Your task to perform on an android device: visit the assistant section in the google photos Image 0: 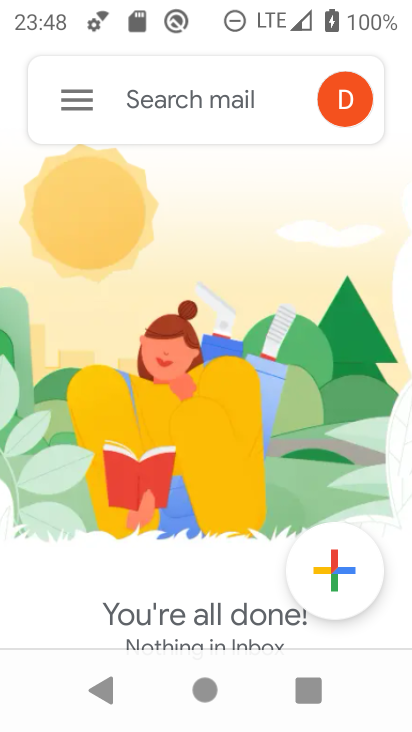
Step 0: press home button
Your task to perform on an android device: visit the assistant section in the google photos Image 1: 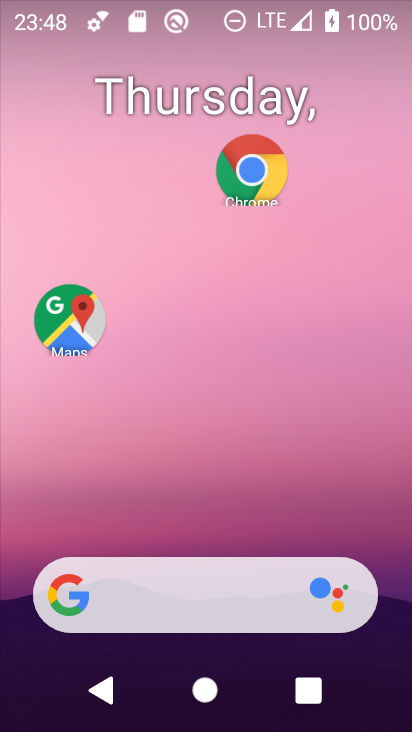
Step 1: click (275, 230)
Your task to perform on an android device: visit the assistant section in the google photos Image 2: 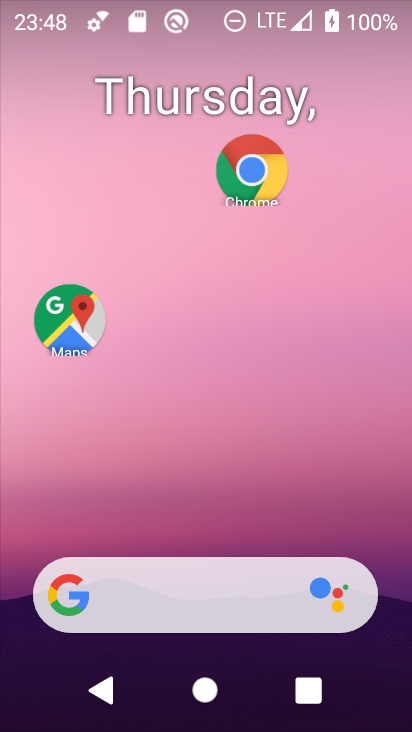
Step 2: drag from (178, 525) to (182, 223)
Your task to perform on an android device: visit the assistant section in the google photos Image 3: 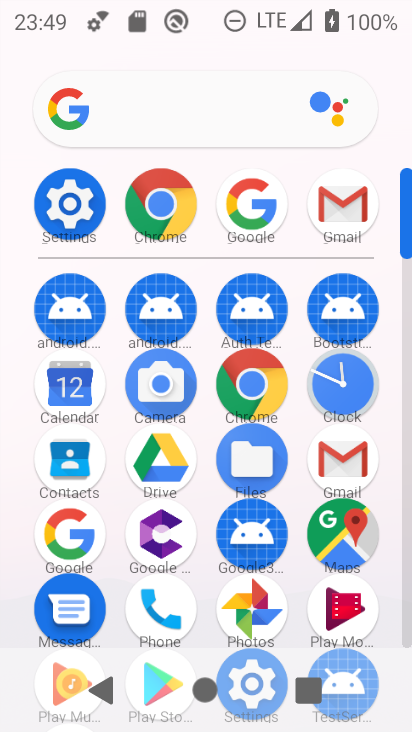
Step 3: click (265, 610)
Your task to perform on an android device: visit the assistant section in the google photos Image 4: 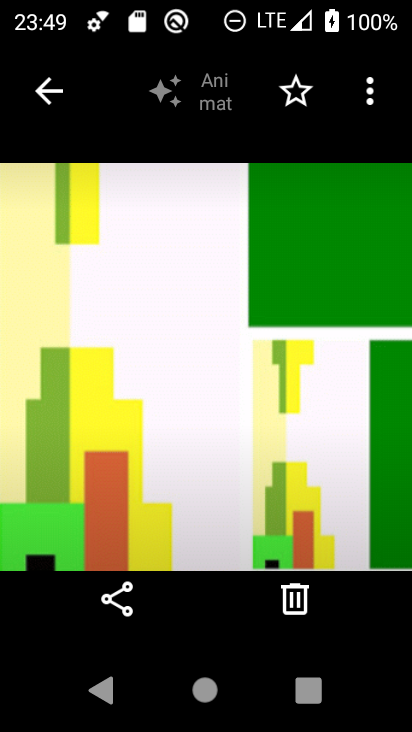
Step 4: click (66, 96)
Your task to perform on an android device: visit the assistant section in the google photos Image 5: 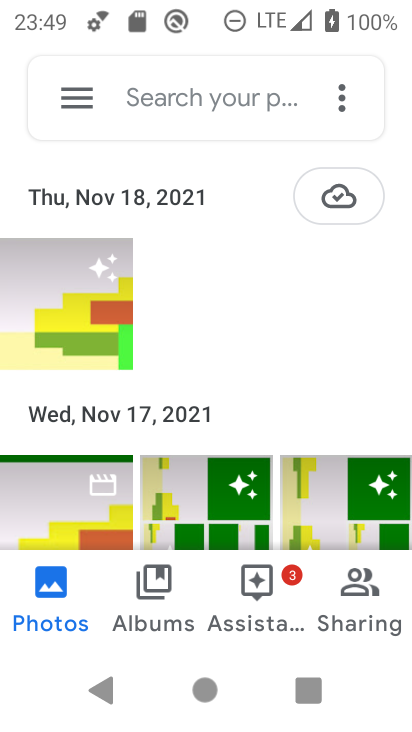
Step 5: click (254, 593)
Your task to perform on an android device: visit the assistant section in the google photos Image 6: 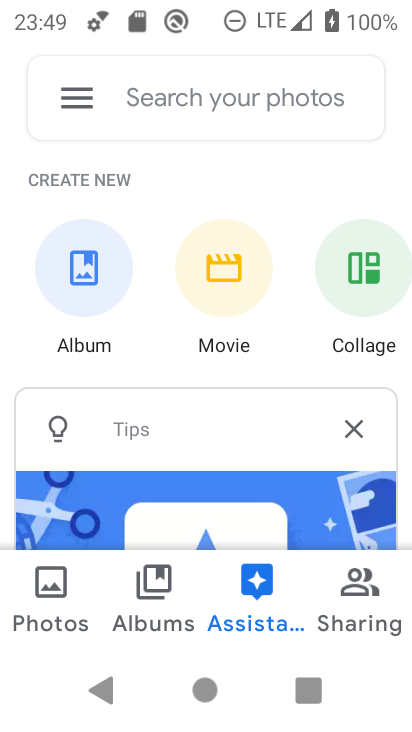
Step 6: task complete